Your task to perform on an android device: Go to calendar. Show me events next week Image 0: 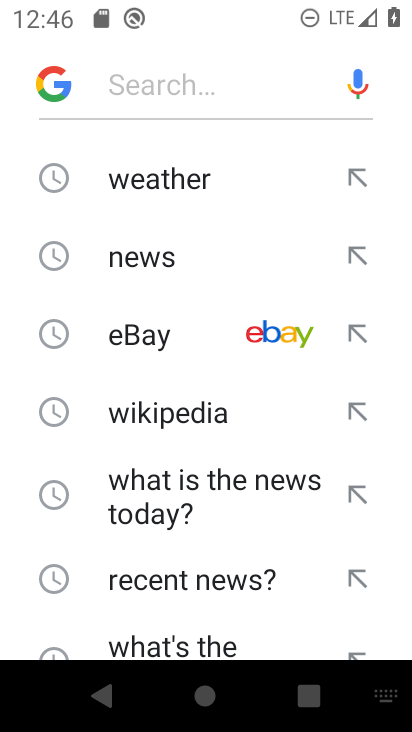
Step 0: press home button
Your task to perform on an android device: Go to calendar. Show me events next week Image 1: 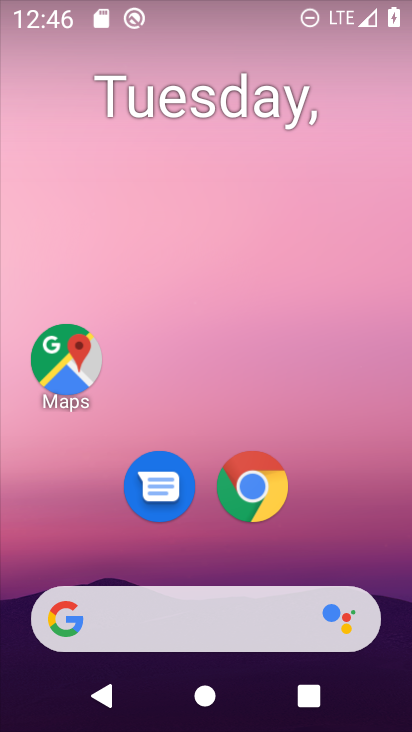
Step 1: drag from (269, 537) to (186, 102)
Your task to perform on an android device: Go to calendar. Show me events next week Image 2: 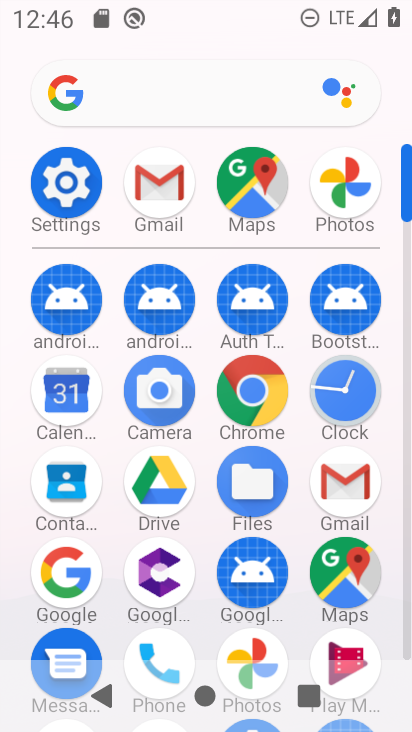
Step 2: click (60, 409)
Your task to perform on an android device: Go to calendar. Show me events next week Image 3: 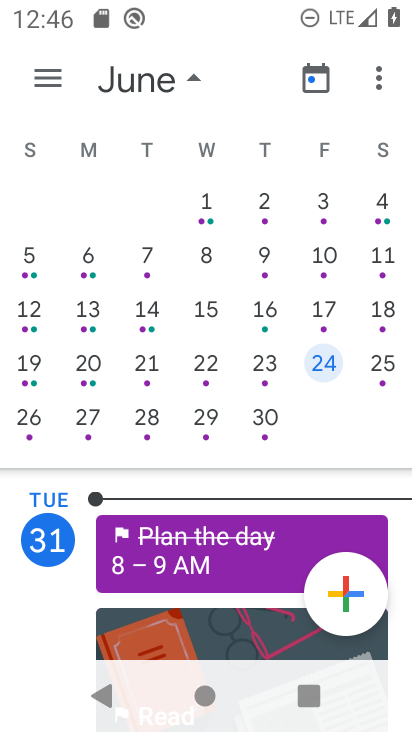
Step 3: click (203, 217)
Your task to perform on an android device: Go to calendar. Show me events next week Image 4: 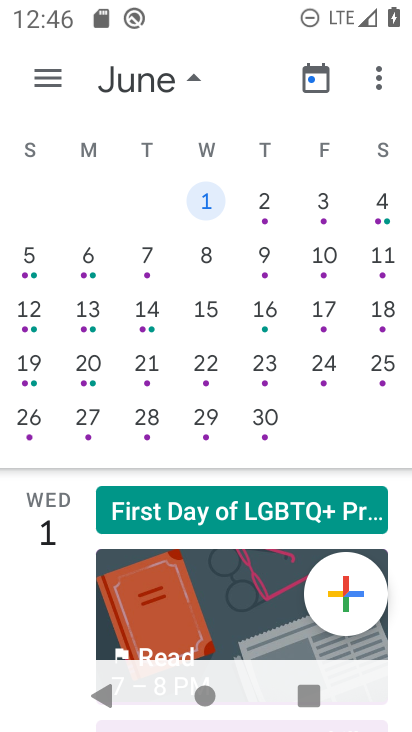
Step 4: click (156, 83)
Your task to perform on an android device: Go to calendar. Show me events next week Image 5: 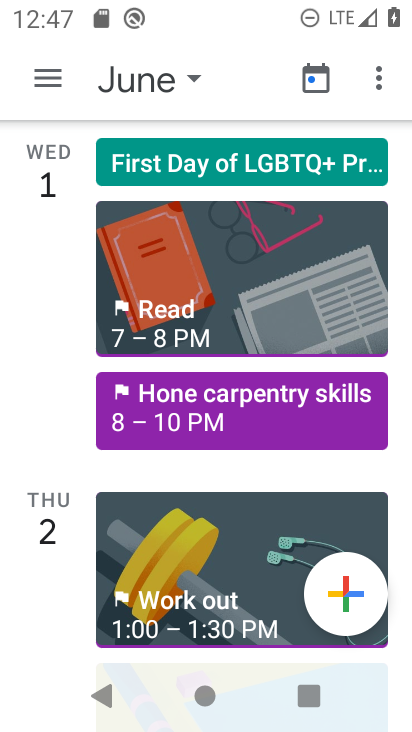
Step 5: task complete